Your task to perform on an android device: Search for "razer deathadder" on ebay.com, select the first entry, and add it to the cart. Image 0: 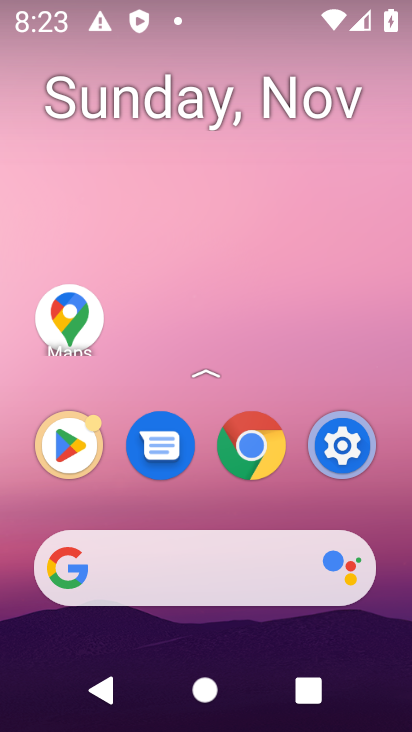
Step 0: click (337, 432)
Your task to perform on an android device: Search for "razer deathadder" on ebay.com, select the first entry, and add it to the cart. Image 1: 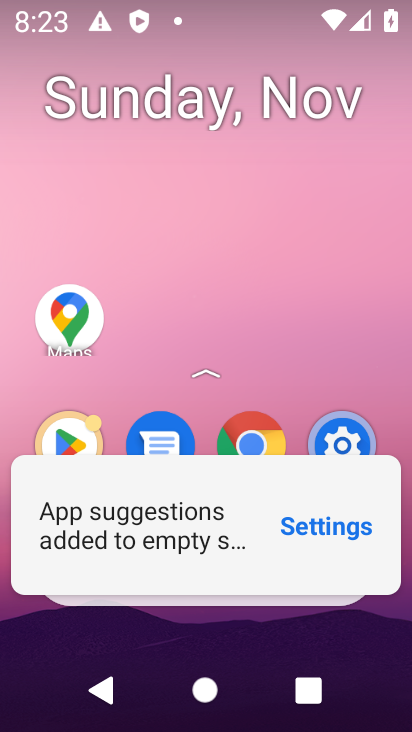
Step 1: click (338, 523)
Your task to perform on an android device: Search for "razer deathadder" on ebay.com, select the first entry, and add it to the cart. Image 2: 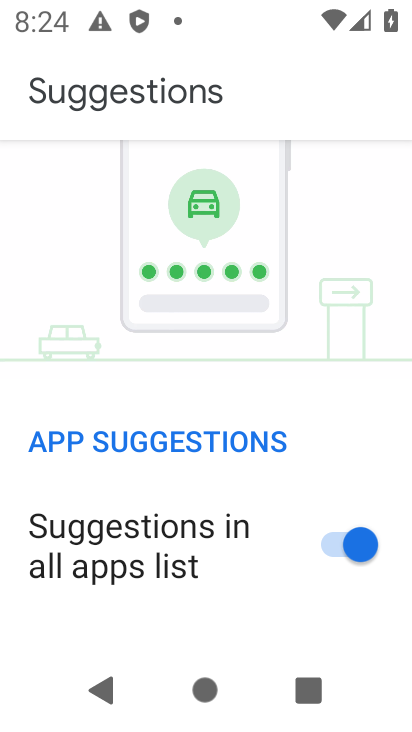
Step 2: drag from (184, 341) to (145, 48)
Your task to perform on an android device: Search for "razer deathadder" on ebay.com, select the first entry, and add it to the cart. Image 3: 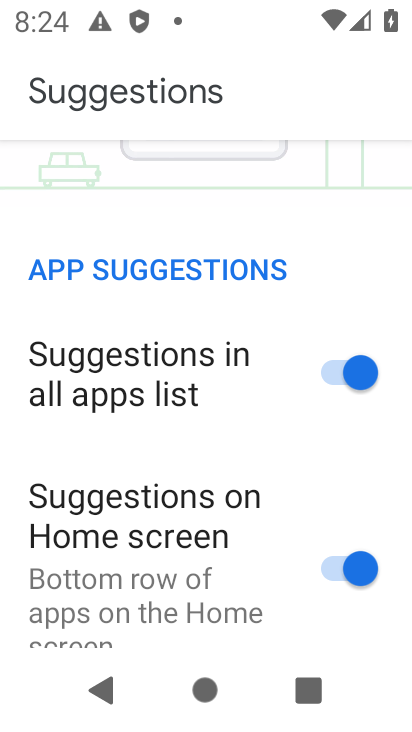
Step 3: drag from (221, 529) to (245, 364)
Your task to perform on an android device: Search for "razer deathadder" on ebay.com, select the first entry, and add it to the cart. Image 4: 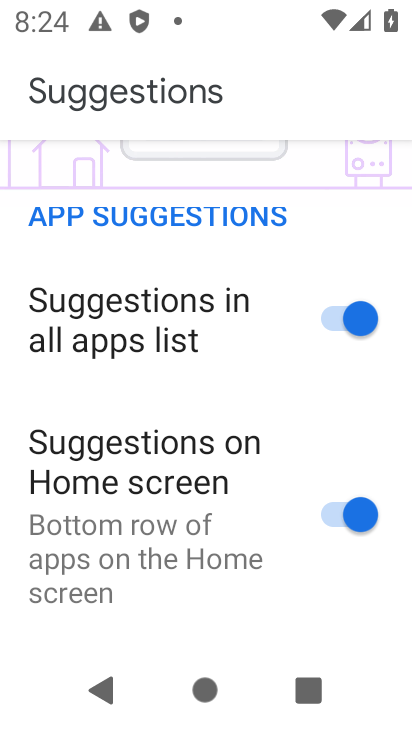
Step 4: drag from (194, 528) to (208, 195)
Your task to perform on an android device: Search for "razer deathadder" on ebay.com, select the first entry, and add it to the cart. Image 5: 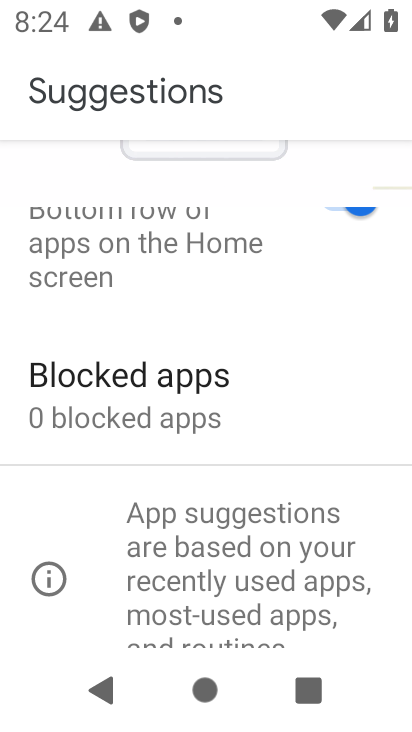
Step 5: press home button
Your task to perform on an android device: Search for "razer deathadder" on ebay.com, select the first entry, and add it to the cart. Image 6: 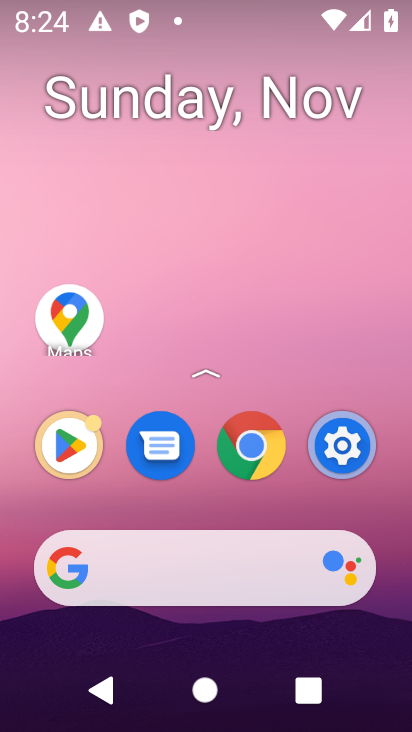
Step 6: click (344, 437)
Your task to perform on an android device: Search for "razer deathadder" on ebay.com, select the first entry, and add it to the cart. Image 7: 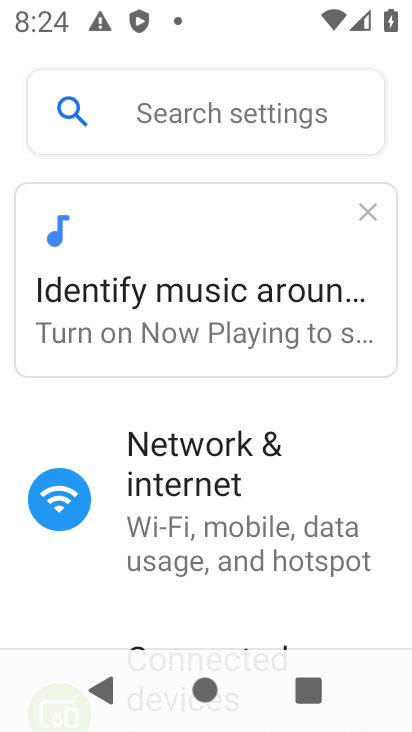
Step 7: click (370, 215)
Your task to perform on an android device: Search for "razer deathadder" on ebay.com, select the first entry, and add it to the cart. Image 8: 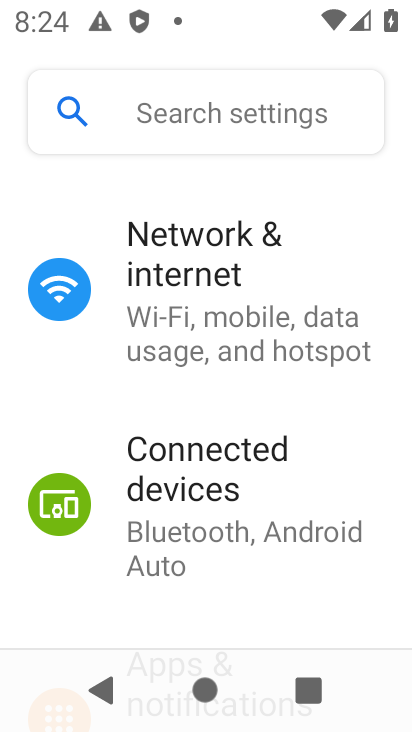
Step 8: drag from (243, 586) to (408, 536)
Your task to perform on an android device: Search for "razer deathadder" on ebay.com, select the first entry, and add it to the cart. Image 9: 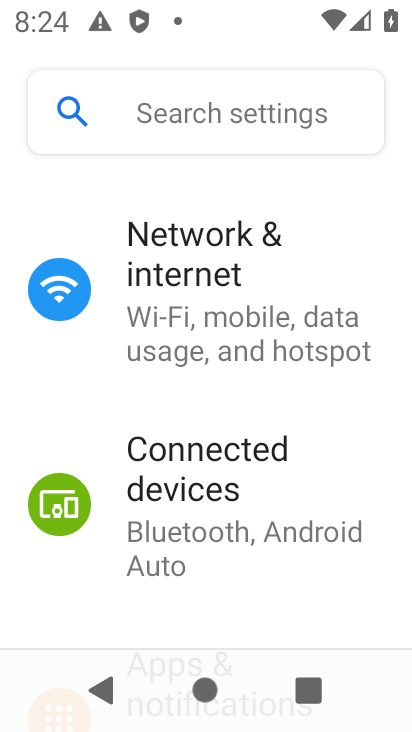
Step 9: drag from (242, 620) to (399, 232)
Your task to perform on an android device: Search for "razer deathadder" on ebay.com, select the first entry, and add it to the cart. Image 10: 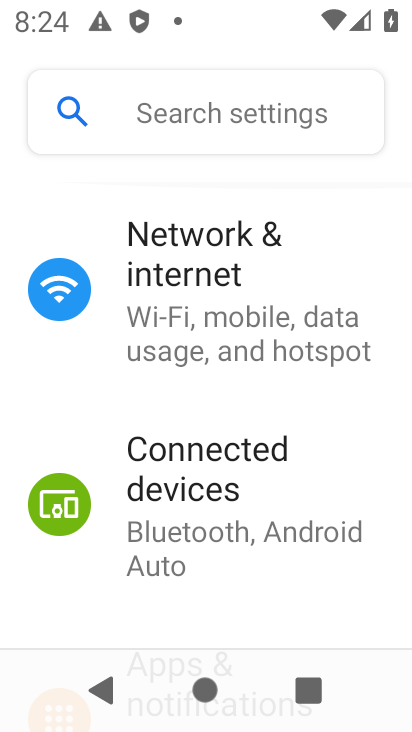
Step 10: drag from (311, 496) to (367, 288)
Your task to perform on an android device: Search for "razer deathadder" on ebay.com, select the first entry, and add it to the cart. Image 11: 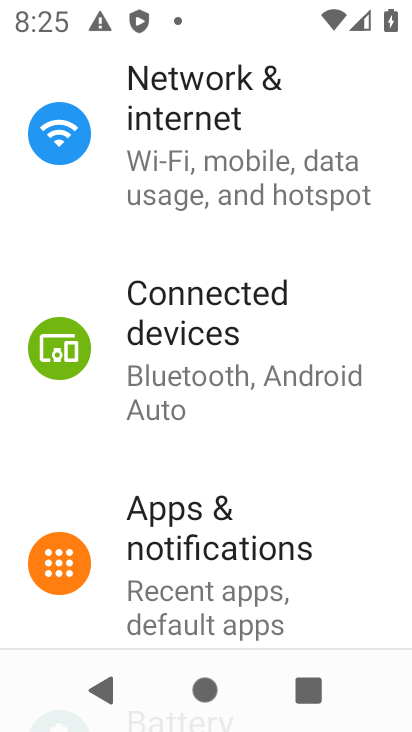
Step 11: drag from (179, 649) to (260, 271)
Your task to perform on an android device: Search for "razer deathadder" on ebay.com, select the first entry, and add it to the cart. Image 12: 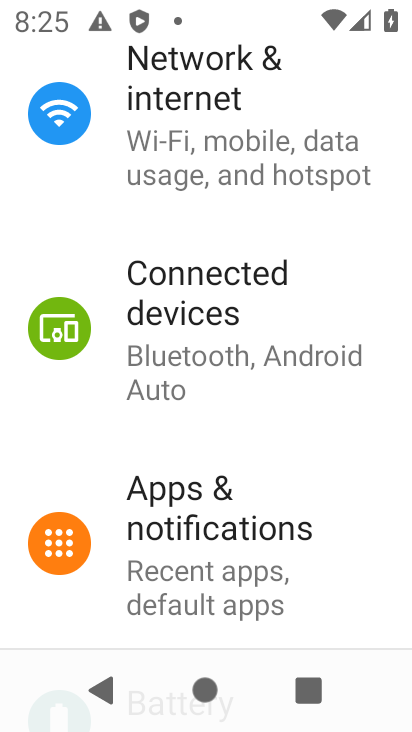
Step 12: drag from (234, 573) to (300, 170)
Your task to perform on an android device: Search for "razer deathadder" on ebay.com, select the first entry, and add it to the cart. Image 13: 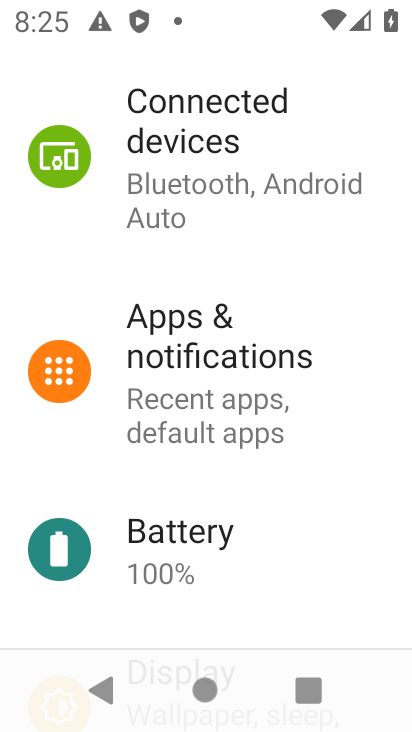
Step 13: drag from (227, 568) to (322, 66)
Your task to perform on an android device: Search for "razer deathadder" on ebay.com, select the first entry, and add it to the cart. Image 14: 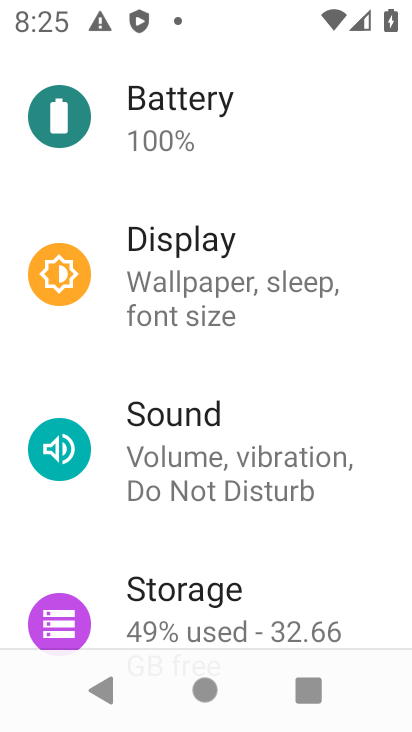
Step 14: click (243, 302)
Your task to perform on an android device: Search for "razer deathadder" on ebay.com, select the first entry, and add it to the cart. Image 15: 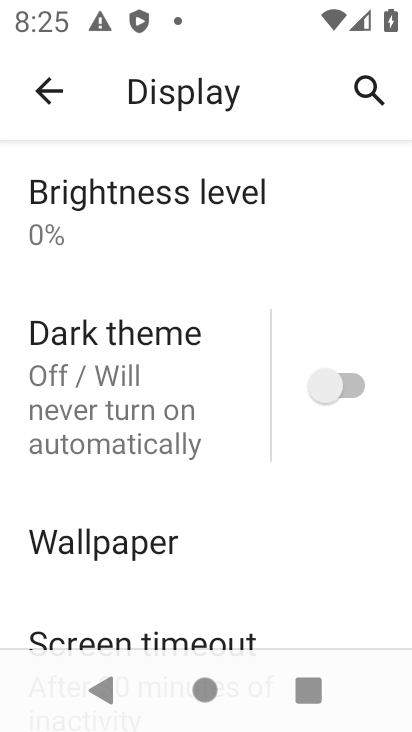
Step 15: drag from (181, 529) to (195, 236)
Your task to perform on an android device: Search for "razer deathadder" on ebay.com, select the first entry, and add it to the cart. Image 16: 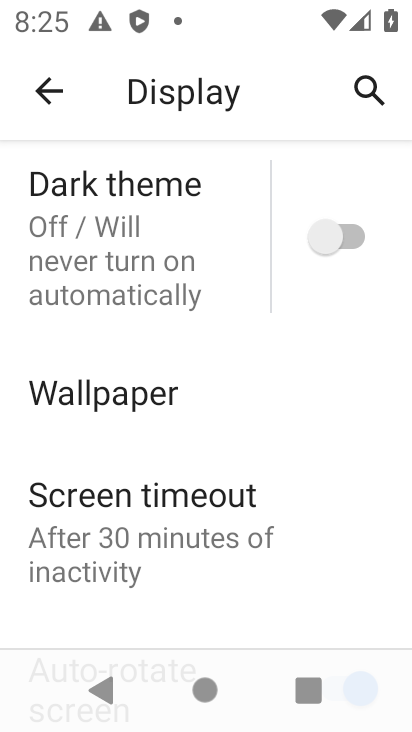
Step 16: drag from (156, 569) to (241, 338)
Your task to perform on an android device: Search for "razer deathadder" on ebay.com, select the first entry, and add it to the cart. Image 17: 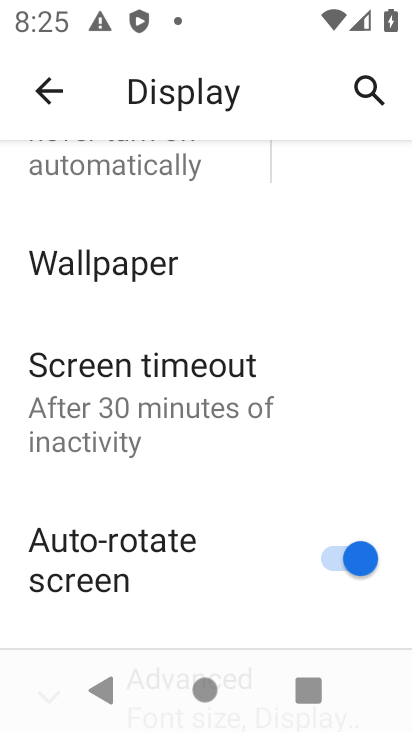
Step 17: drag from (146, 528) to (297, 279)
Your task to perform on an android device: Search for "razer deathadder" on ebay.com, select the first entry, and add it to the cart. Image 18: 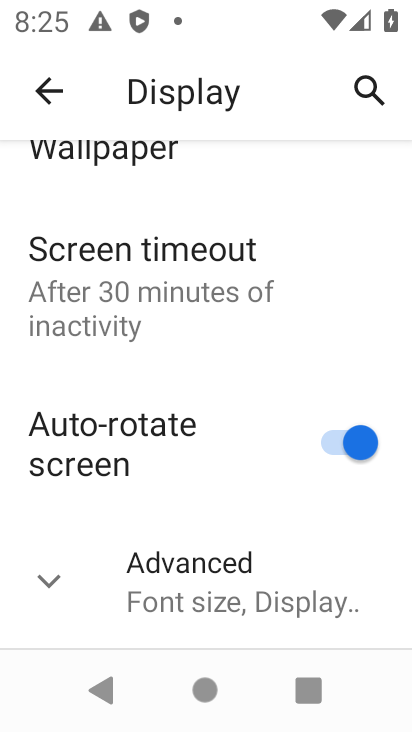
Step 18: click (177, 587)
Your task to perform on an android device: Search for "razer deathadder" on ebay.com, select the first entry, and add it to the cart. Image 19: 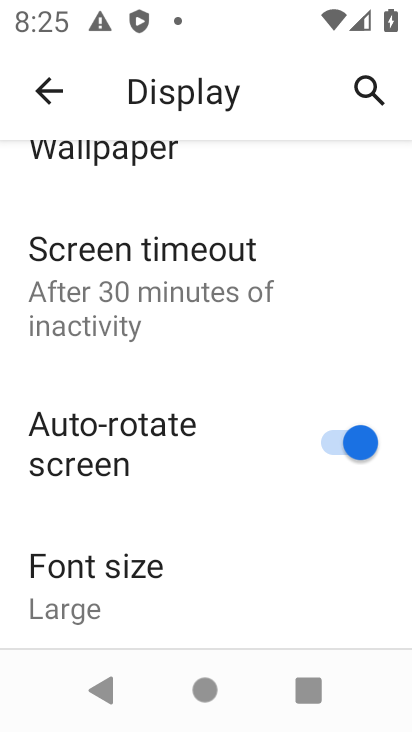
Step 19: click (100, 588)
Your task to perform on an android device: Search for "razer deathadder" on ebay.com, select the first entry, and add it to the cart. Image 20: 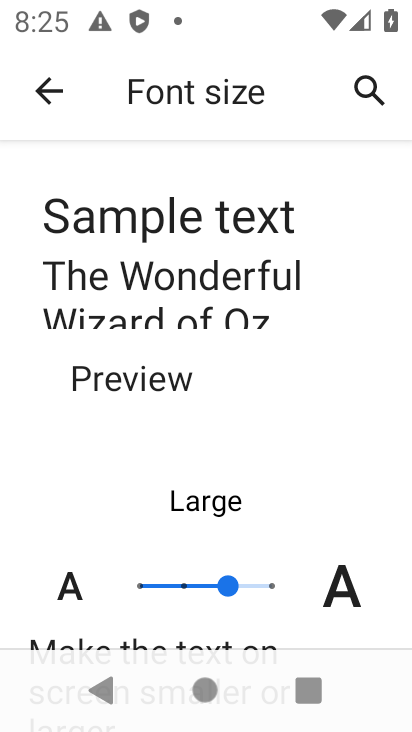
Step 20: click (138, 585)
Your task to perform on an android device: Search for "razer deathadder" on ebay.com, select the first entry, and add it to the cart. Image 21: 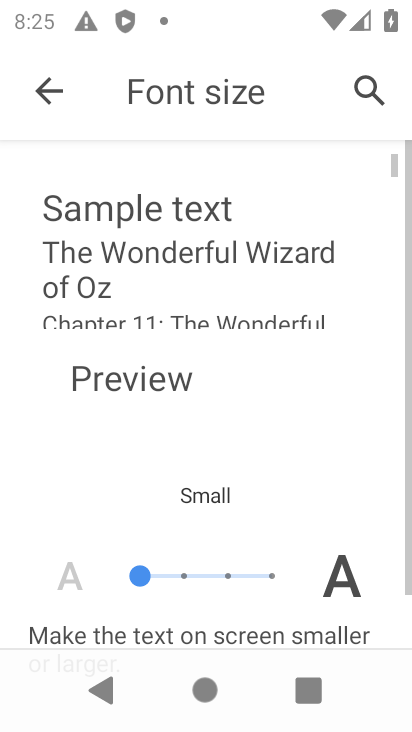
Step 21: click (138, 585)
Your task to perform on an android device: Search for "razer deathadder" on ebay.com, select the first entry, and add it to the cart. Image 22: 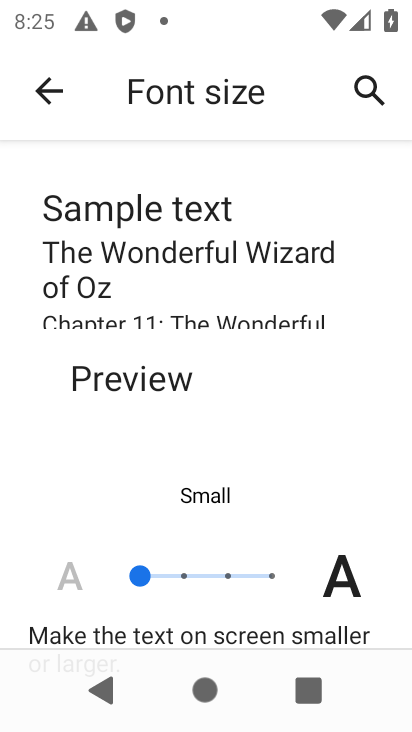
Step 22: press home button
Your task to perform on an android device: Search for "razer deathadder" on ebay.com, select the first entry, and add it to the cart. Image 23: 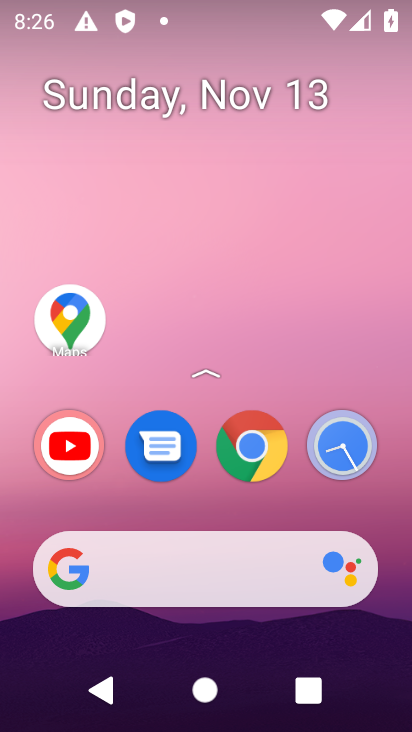
Step 23: click (257, 447)
Your task to perform on an android device: Search for "razer deathadder" on ebay.com, select the first entry, and add it to the cart. Image 24: 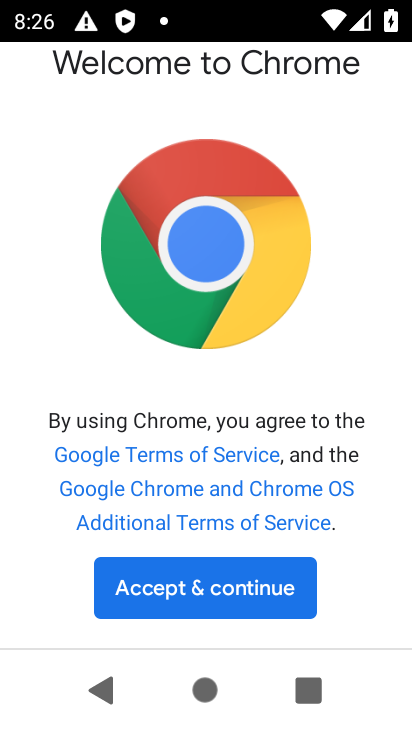
Step 24: click (246, 598)
Your task to perform on an android device: Search for "razer deathadder" on ebay.com, select the first entry, and add it to the cart. Image 25: 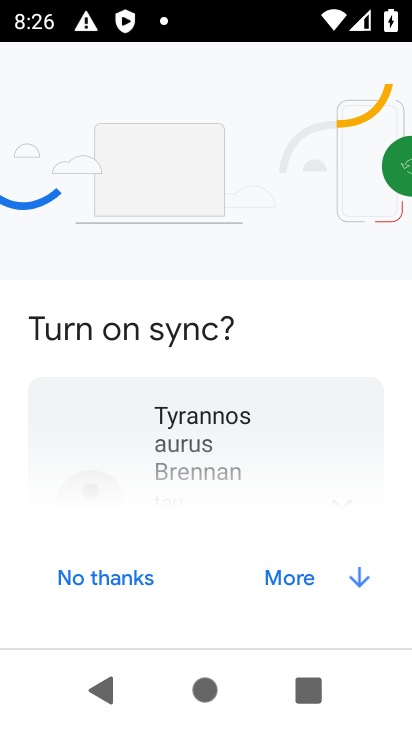
Step 25: click (359, 578)
Your task to perform on an android device: Search for "razer deathadder" on ebay.com, select the first entry, and add it to the cart. Image 26: 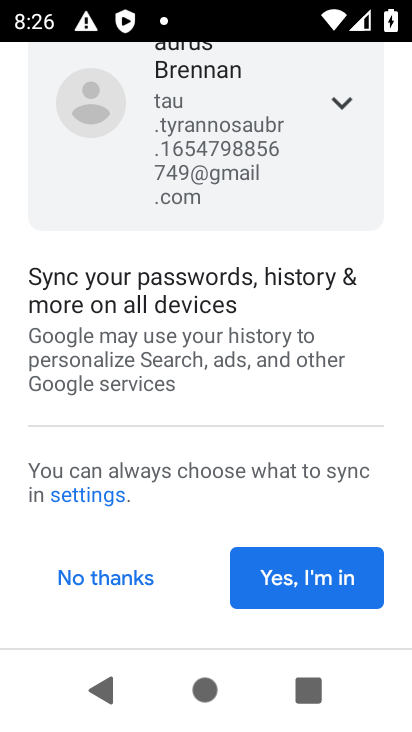
Step 26: click (310, 580)
Your task to perform on an android device: Search for "razer deathadder" on ebay.com, select the first entry, and add it to the cart. Image 27: 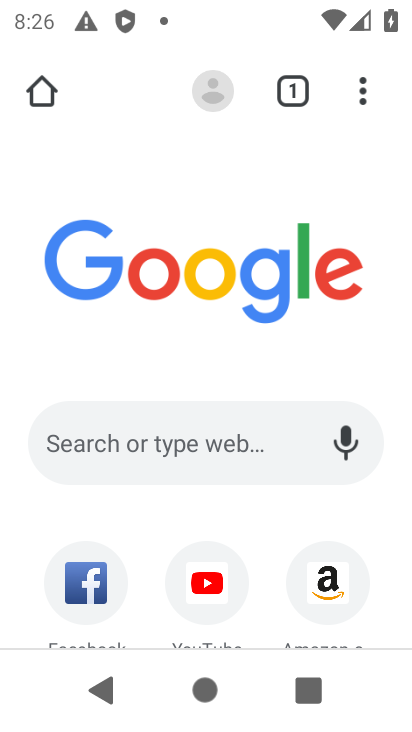
Step 27: click (150, 444)
Your task to perform on an android device: Search for "razer deathadder" on ebay.com, select the first entry, and add it to the cart. Image 28: 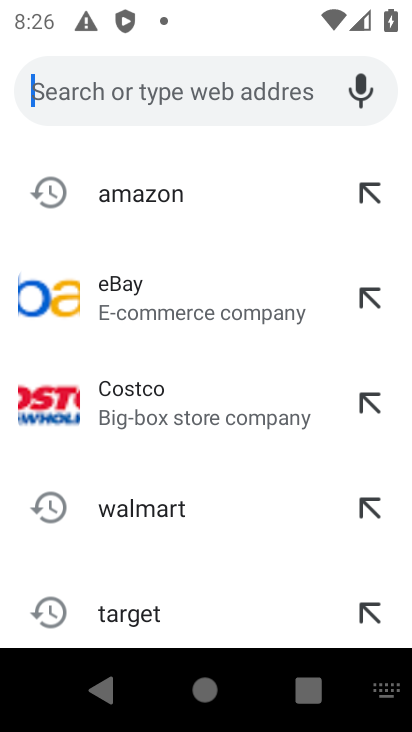
Step 28: type "razer deathadder"
Your task to perform on an android device: Search for "razer deathadder" on ebay.com, select the first entry, and add it to the cart. Image 29: 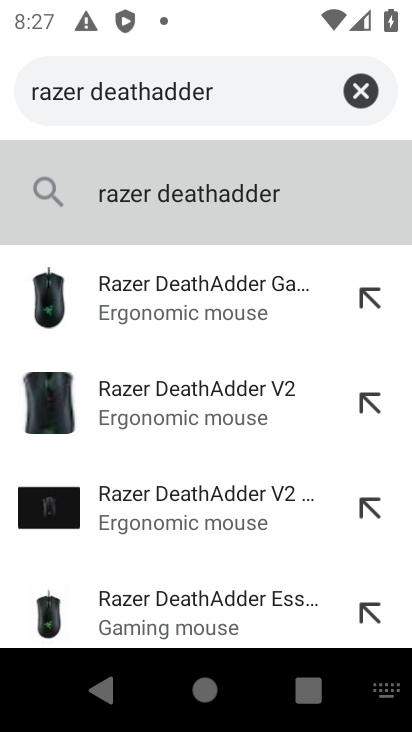
Step 29: type " on ebay"
Your task to perform on an android device: Search for "razer deathadder" on ebay.com, select the first entry, and add it to the cart. Image 30: 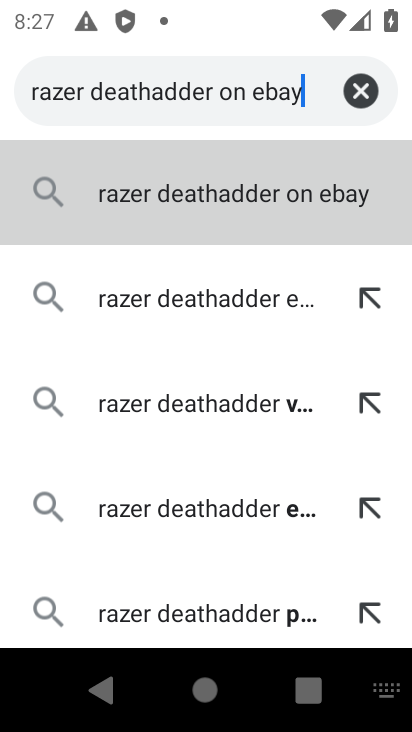
Step 30: click (241, 190)
Your task to perform on an android device: Search for "razer deathadder" on ebay.com, select the first entry, and add it to the cart. Image 31: 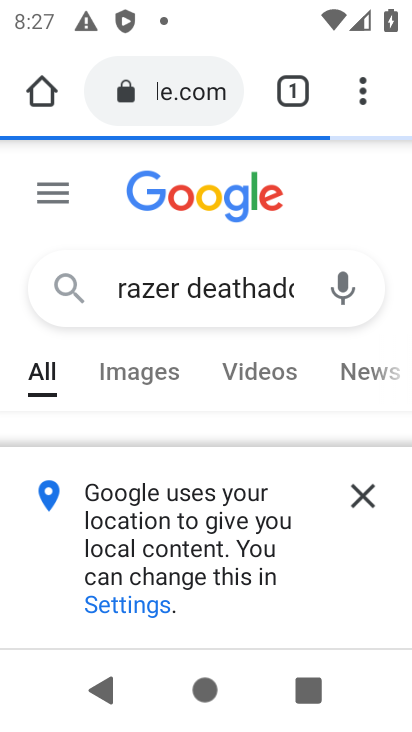
Step 31: click (362, 504)
Your task to perform on an android device: Search for "razer deathadder" on ebay.com, select the first entry, and add it to the cart. Image 32: 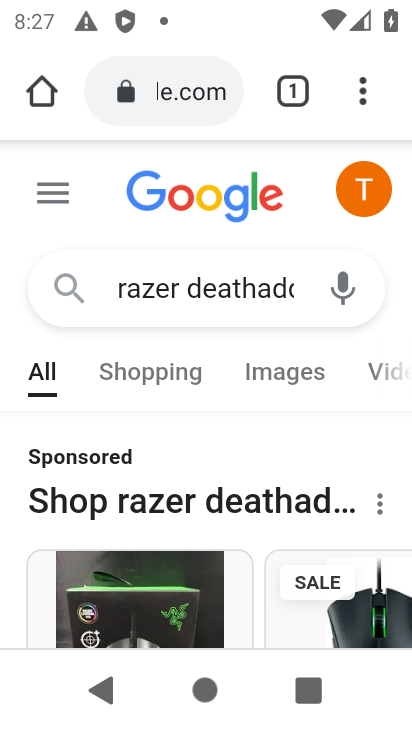
Step 32: drag from (185, 510) to (267, 11)
Your task to perform on an android device: Search for "razer deathadder" on ebay.com, select the first entry, and add it to the cart. Image 33: 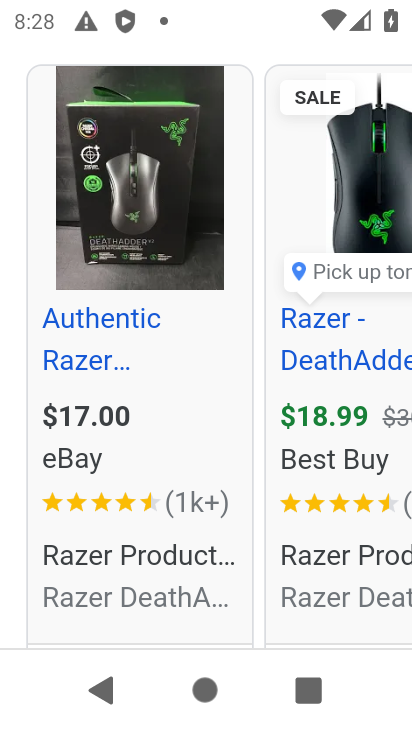
Step 33: click (78, 317)
Your task to perform on an android device: Search for "razer deathadder" on ebay.com, select the first entry, and add it to the cart. Image 34: 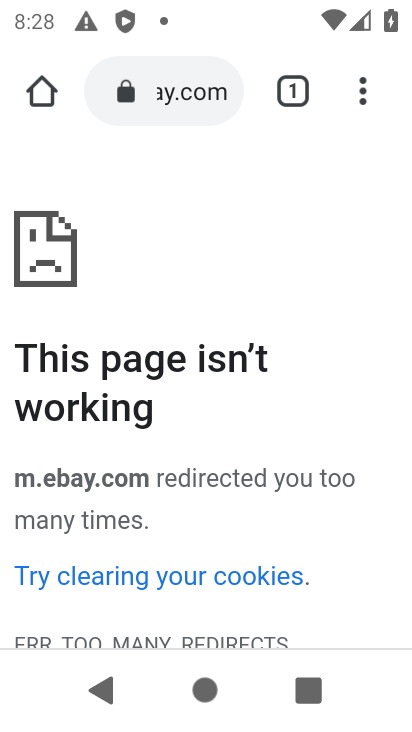
Step 34: task complete